Your task to perform on an android device: turn off sleep mode Image 0: 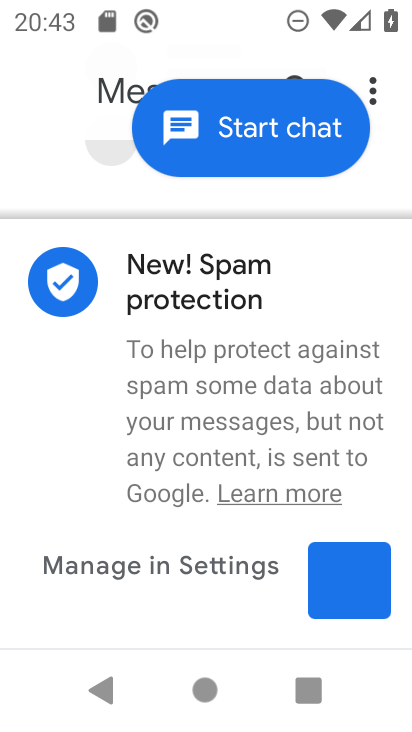
Step 0: press home button
Your task to perform on an android device: turn off sleep mode Image 1: 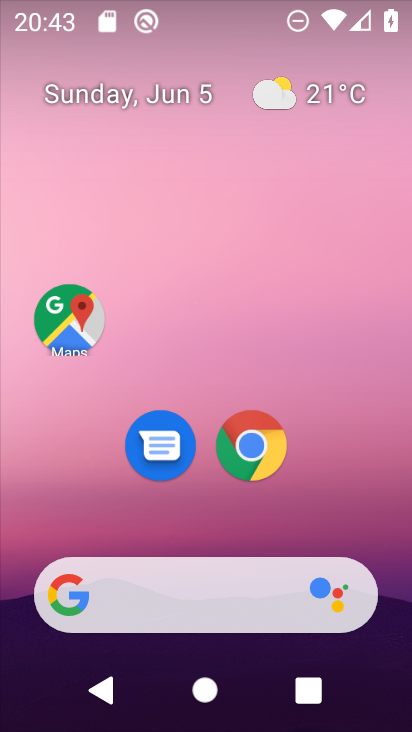
Step 1: drag from (327, 506) to (323, 114)
Your task to perform on an android device: turn off sleep mode Image 2: 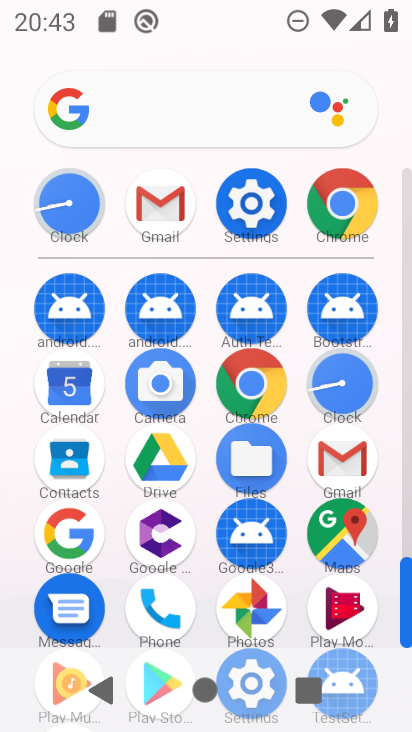
Step 2: click (261, 196)
Your task to perform on an android device: turn off sleep mode Image 3: 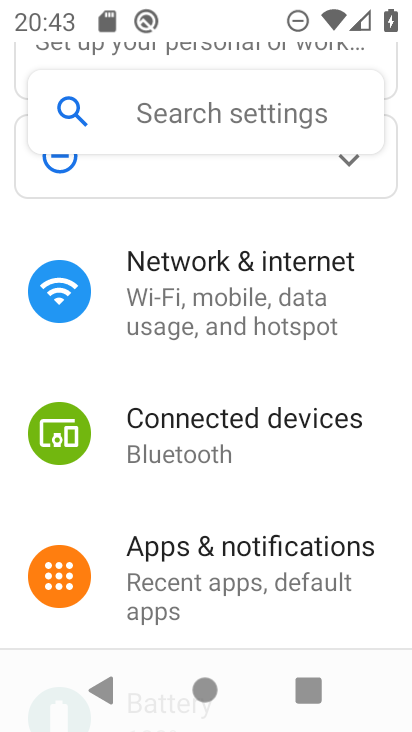
Step 3: drag from (22, 534) to (66, 171)
Your task to perform on an android device: turn off sleep mode Image 4: 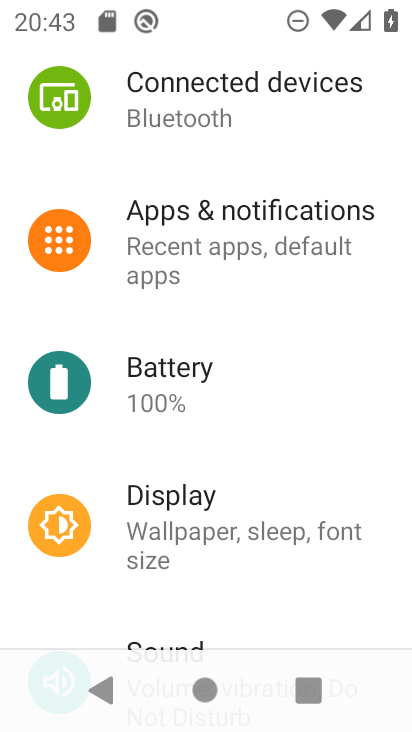
Step 4: click (231, 516)
Your task to perform on an android device: turn off sleep mode Image 5: 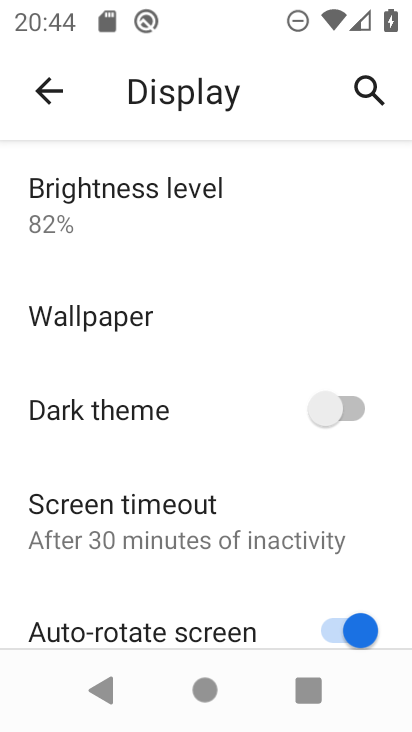
Step 5: drag from (23, 597) to (69, 252)
Your task to perform on an android device: turn off sleep mode Image 6: 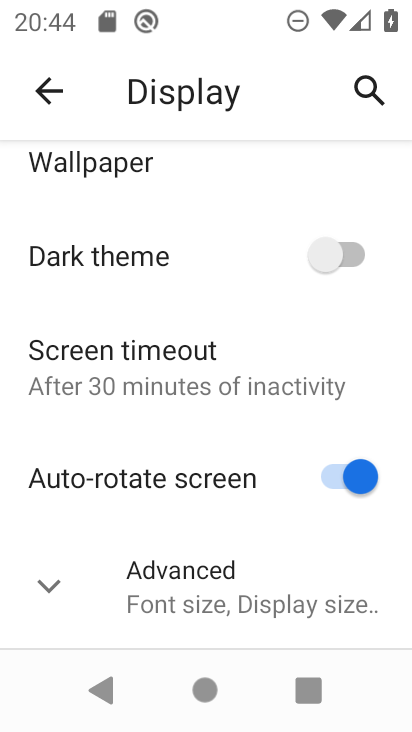
Step 6: click (42, 577)
Your task to perform on an android device: turn off sleep mode Image 7: 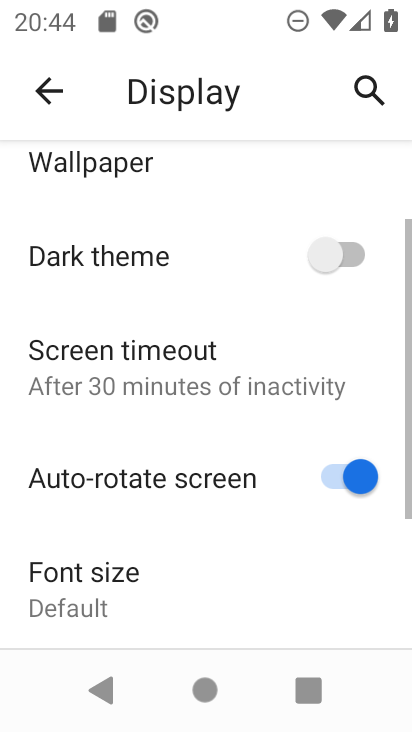
Step 7: task complete